Your task to perform on an android device: toggle pop-ups in chrome Image 0: 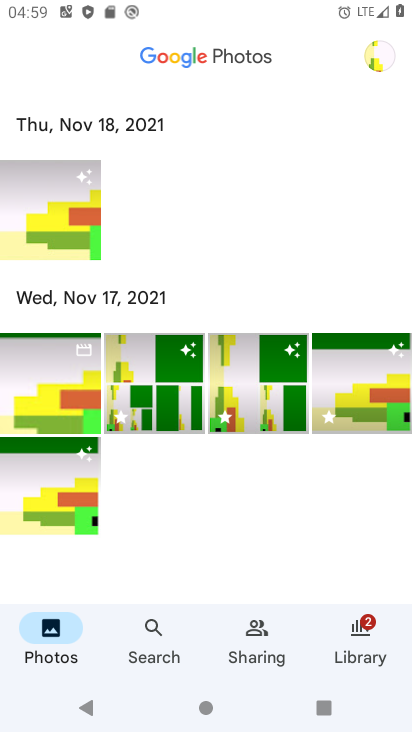
Step 0: press home button
Your task to perform on an android device: toggle pop-ups in chrome Image 1: 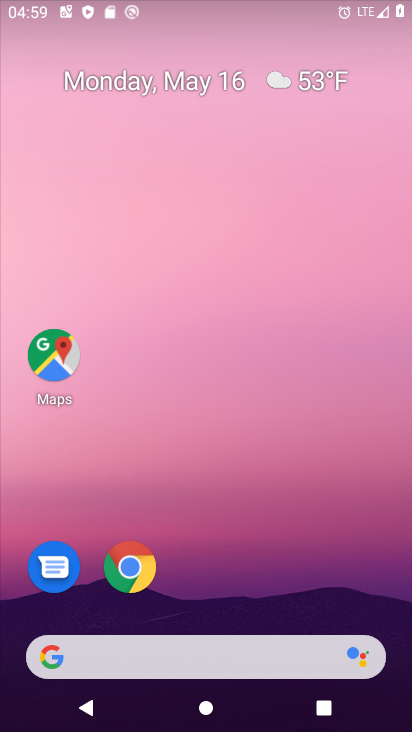
Step 1: drag from (298, 664) to (356, 5)
Your task to perform on an android device: toggle pop-ups in chrome Image 2: 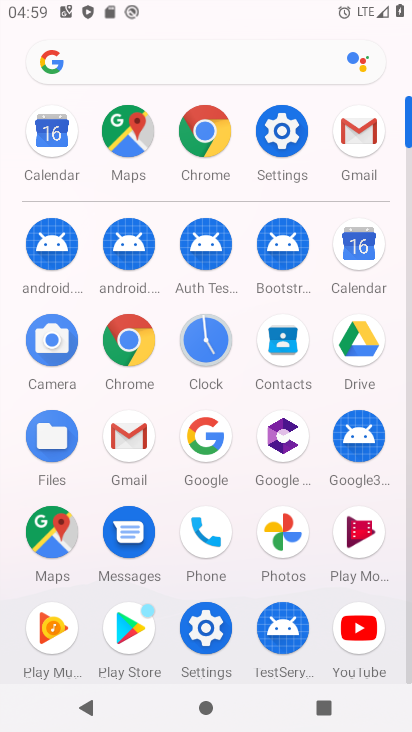
Step 2: click (146, 338)
Your task to perform on an android device: toggle pop-ups in chrome Image 3: 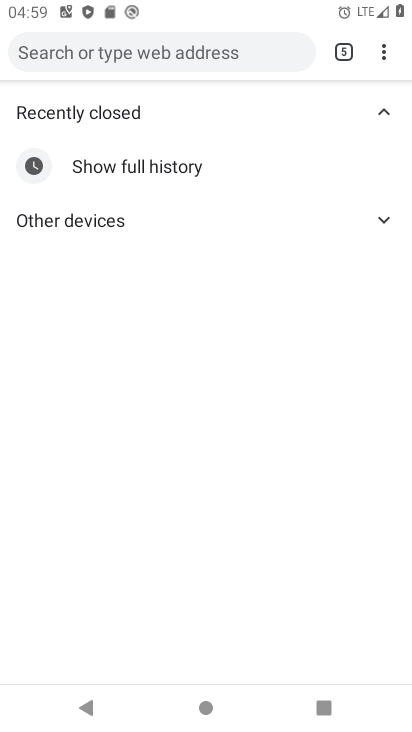
Step 3: press back button
Your task to perform on an android device: toggle pop-ups in chrome Image 4: 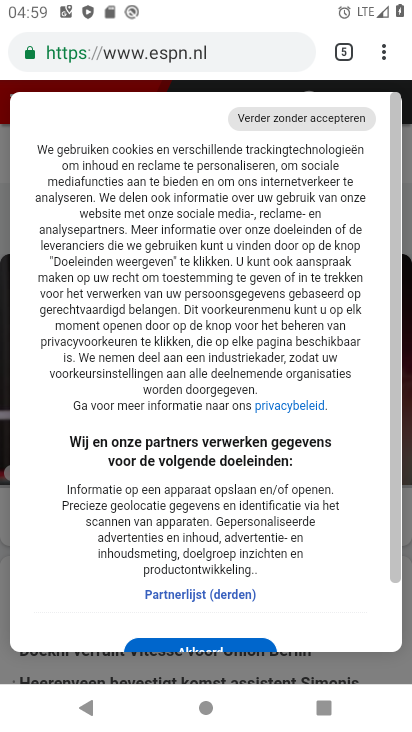
Step 4: click (390, 52)
Your task to perform on an android device: toggle pop-ups in chrome Image 5: 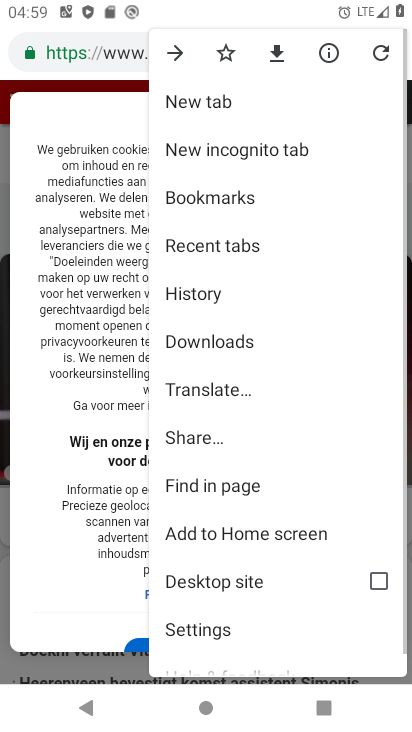
Step 5: drag from (294, 641) to (277, 195)
Your task to perform on an android device: toggle pop-ups in chrome Image 6: 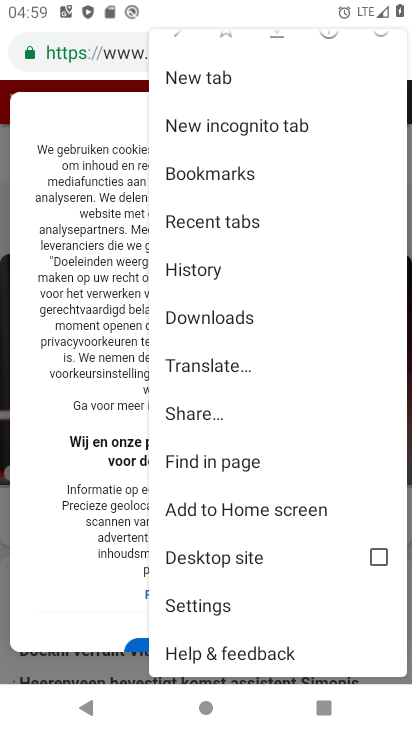
Step 6: click (211, 604)
Your task to perform on an android device: toggle pop-ups in chrome Image 7: 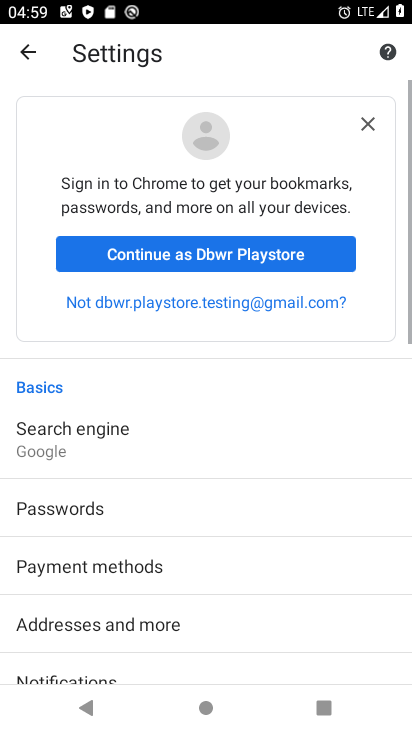
Step 7: drag from (211, 604) to (190, 99)
Your task to perform on an android device: toggle pop-ups in chrome Image 8: 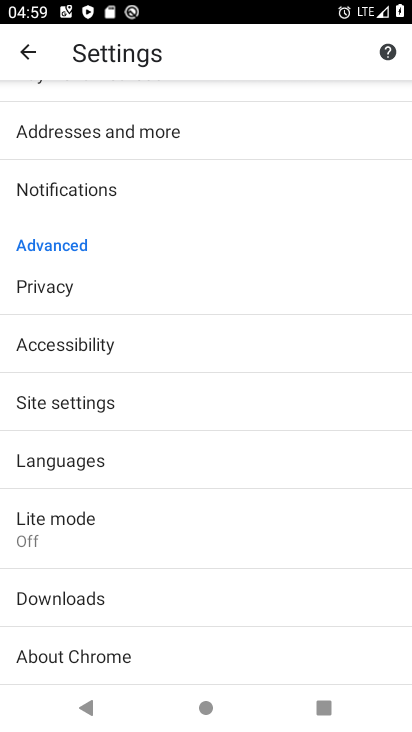
Step 8: drag from (82, 410) to (37, 410)
Your task to perform on an android device: toggle pop-ups in chrome Image 9: 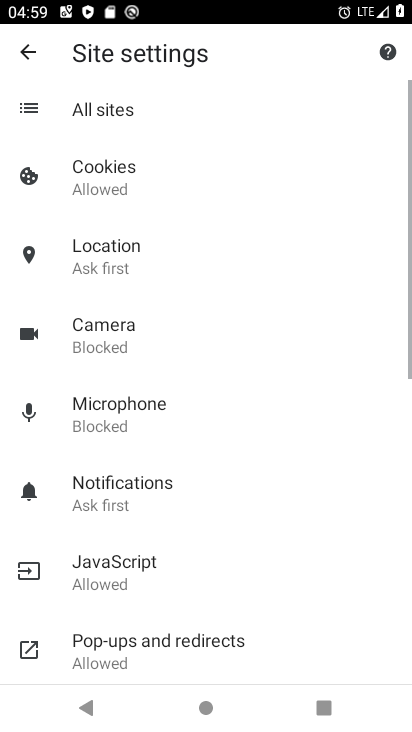
Step 9: drag from (273, 634) to (272, 75)
Your task to perform on an android device: toggle pop-ups in chrome Image 10: 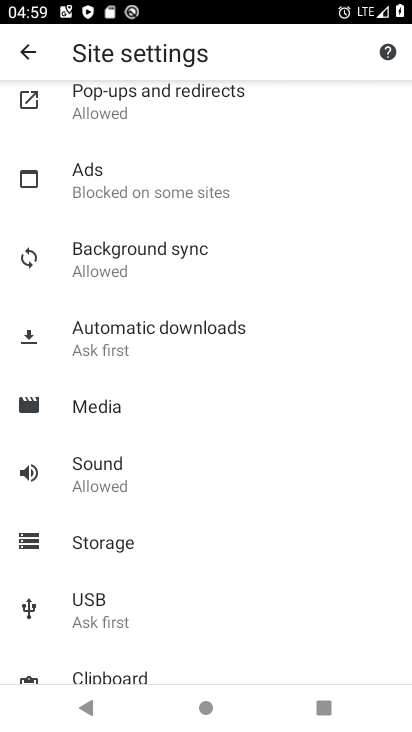
Step 10: click (152, 102)
Your task to perform on an android device: toggle pop-ups in chrome Image 11: 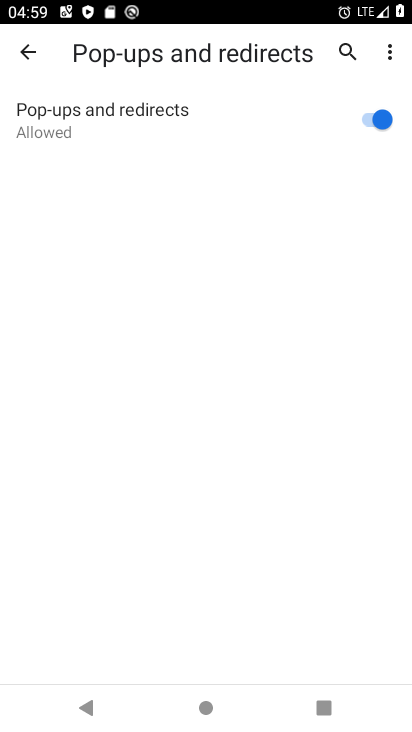
Step 11: click (369, 123)
Your task to perform on an android device: toggle pop-ups in chrome Image 12: 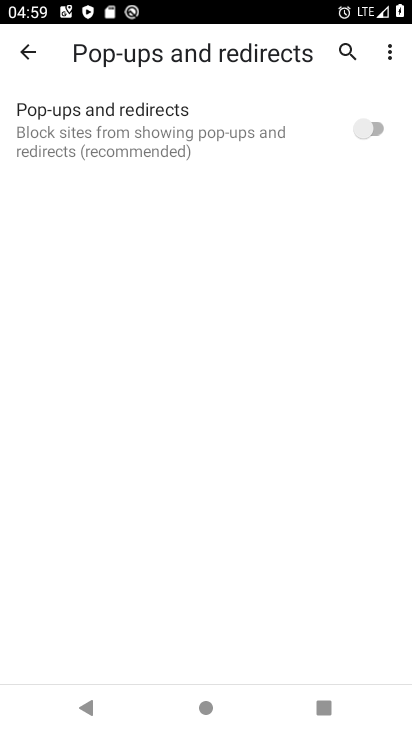
Step 12: task complete